Your task to perform on an android device: check out phone information Image 0: 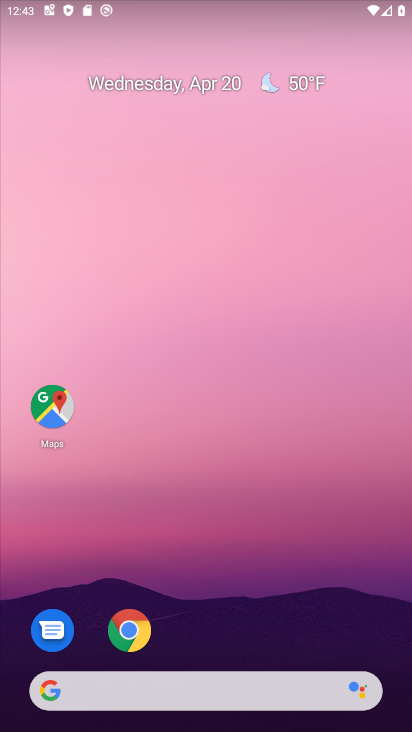
Step 0: drag from (249, 583) to (266, 144)
Your task to perform on an android device: check out phone information Image 1: 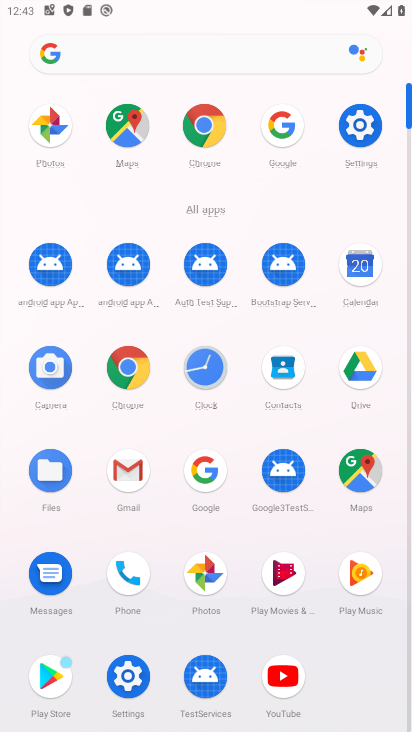
Step 1: click (356, 122)
Your task to perform on an android device: check out phone information Image 2: 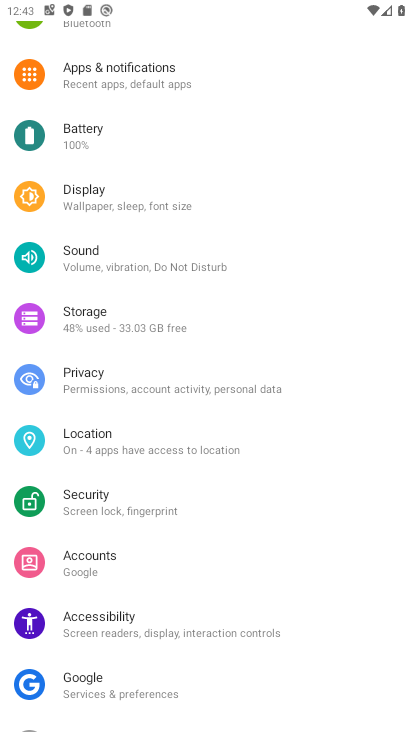
Step 2: drag from (287, 615) to (293, 11)
Your task to perform on an android device: check out phone information Image 3: 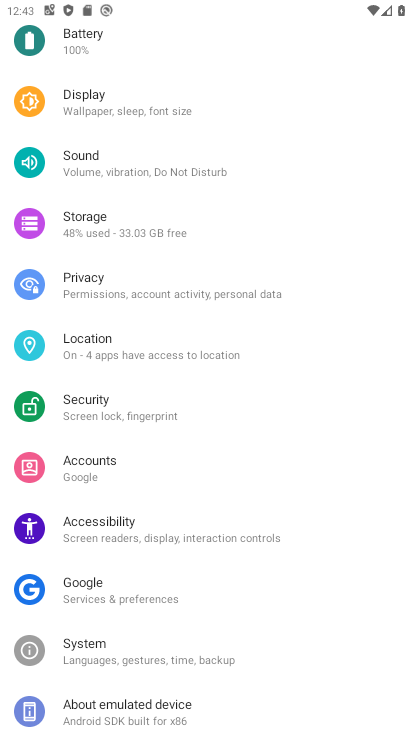
Step 3: click (162, 704)
Your task to perform on an android device: check out phone information Image 4: 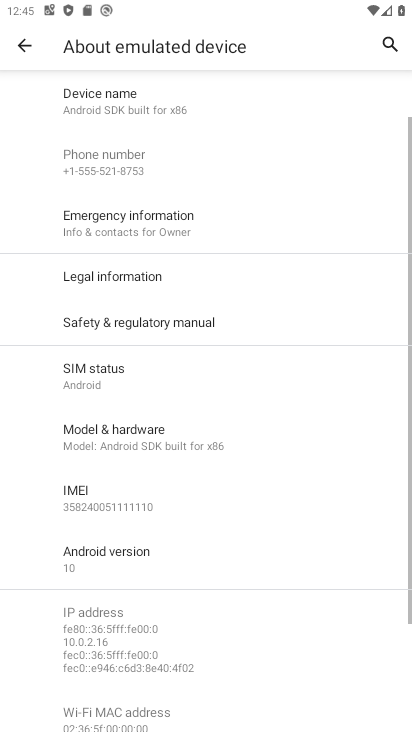
Step 4: task complete